Your task to perform on an android device: turn on showing notifications on the lock screen Image 0: 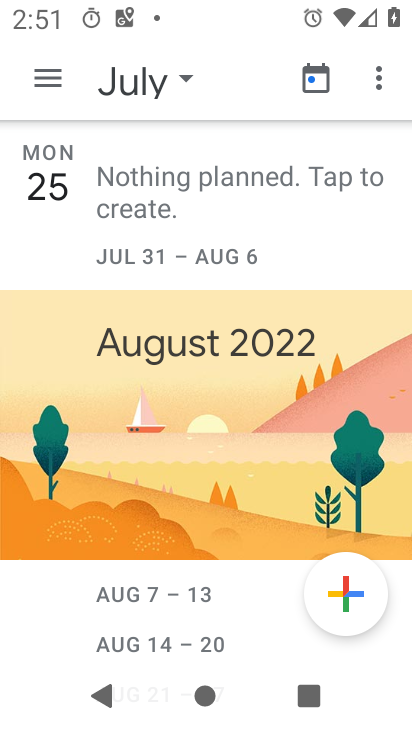
Step 0: press home button
Your task to perform on an android device: turn on showing notifications on the lock screen Image 1: 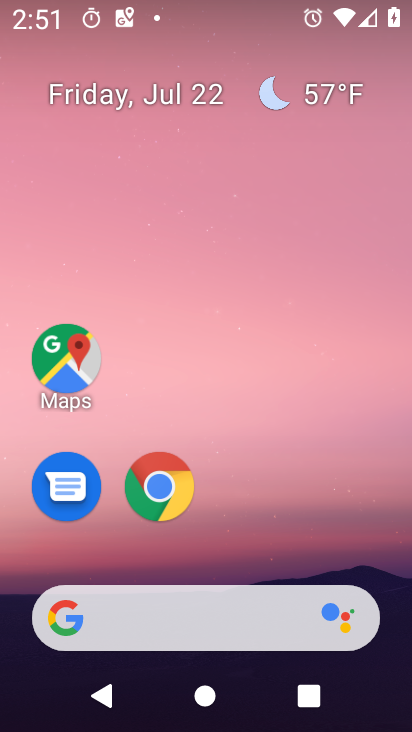
Step 1: drag from (391, 545) to (379, 144)
Your task to perform on an android device: turn on showing notifications on the lock screen Image 2: 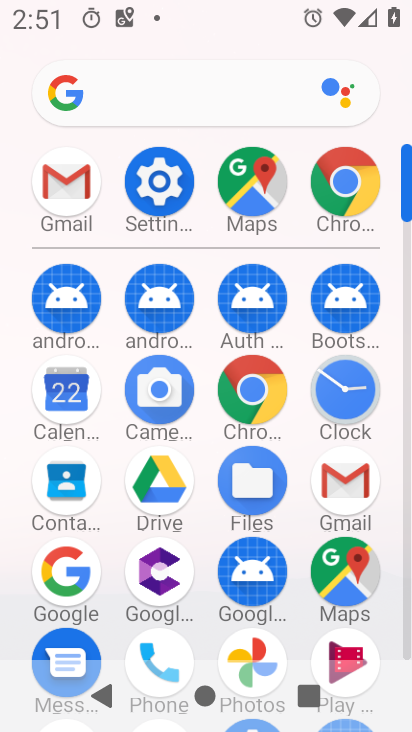
Step 2: click (168, 186)
Your task to perform on an android device: turn on showing notifications on the lock screen Image 3: 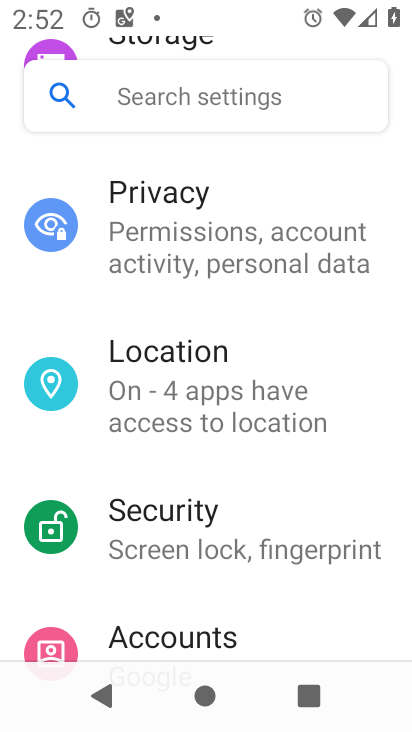
Step 3: drag from (377, 195) to (384, 271)
Your task to perform on an android device: turn on showing notifications on the lock screen Image 4: 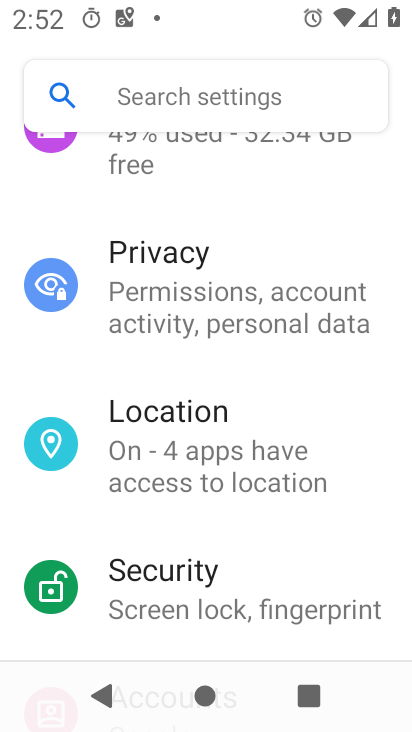
Step 4: drag from (373, 200) to (373, 308)
Your task to perform on an android device: turn on showing notifications on the lock screen Image 5: 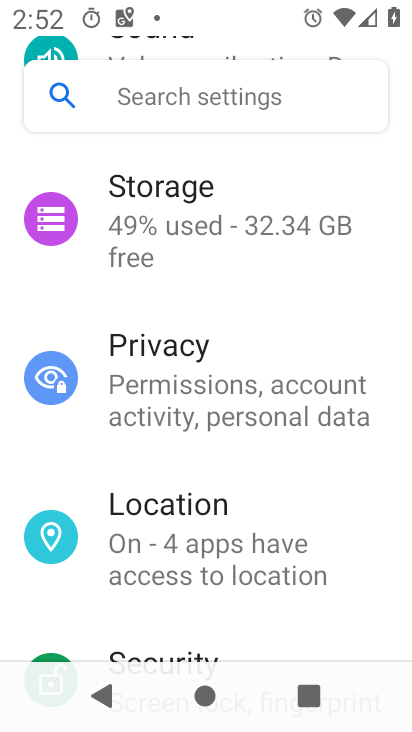
Step 5: drag from (379, 220) to (380, 305)
Your task to perform on an android device: turn on showing notifications on the lock screen Image 6: 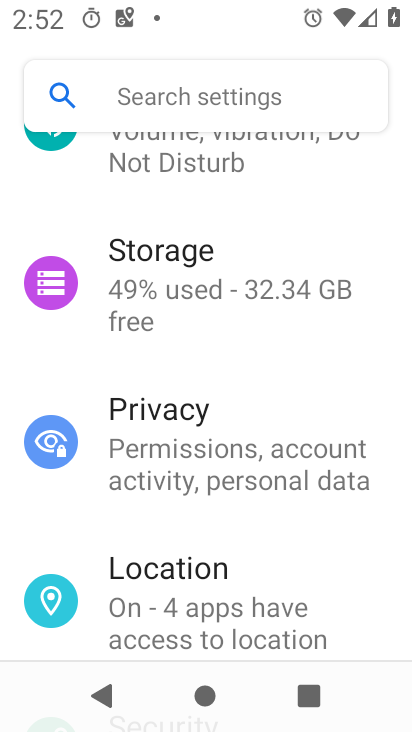
Step 6: drag from (370, 219) to (370, 318)
Your task to perform on an android device: turn on showing notifications on the lock screen Image 7: 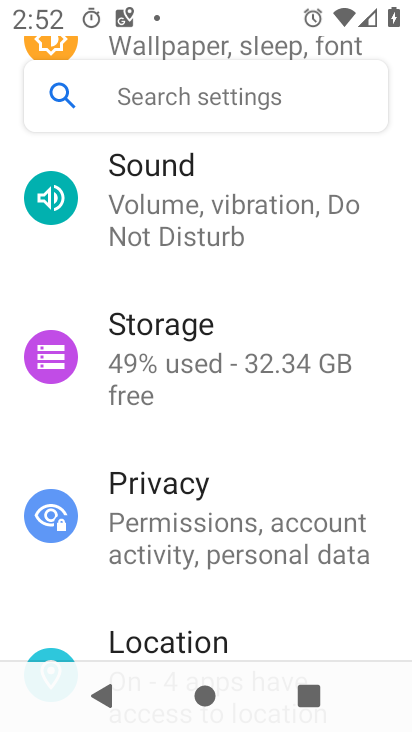
Step 7: drag from (376, 231) to (373, 320)
Your task to perform on an android device: turn on showing notifications on the lock screen Image 8: 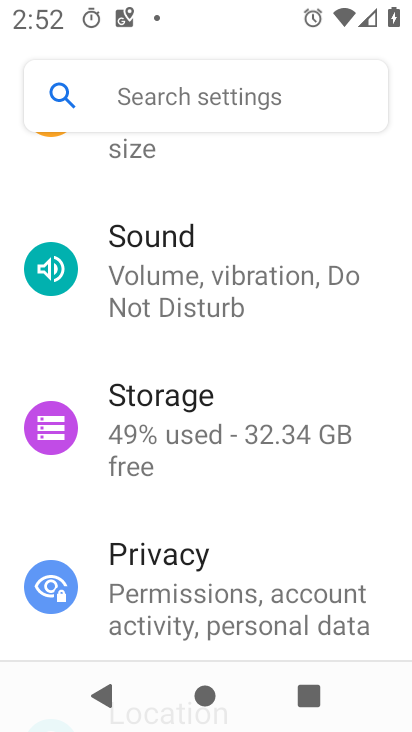
Step 8: drag from (363, 242) to (362, 339)
Your task to perform on an android device: turn on showing notifications on the lock screen Image 9: 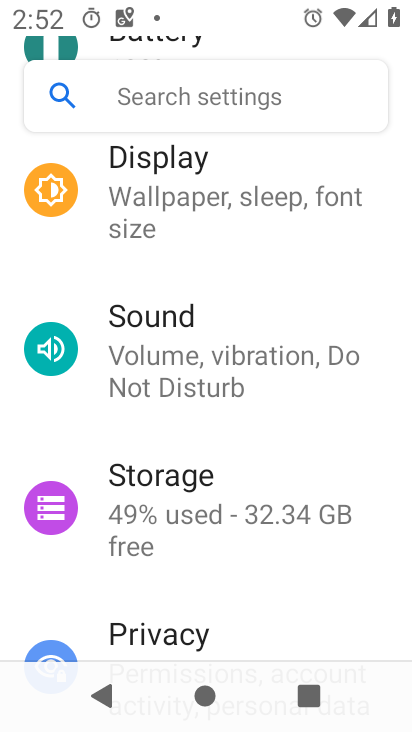
Step 9: drag from (360, 251) to (367, 353)
Your task to perform on an android device: turn on showing notifications on the lock screen Image 10: 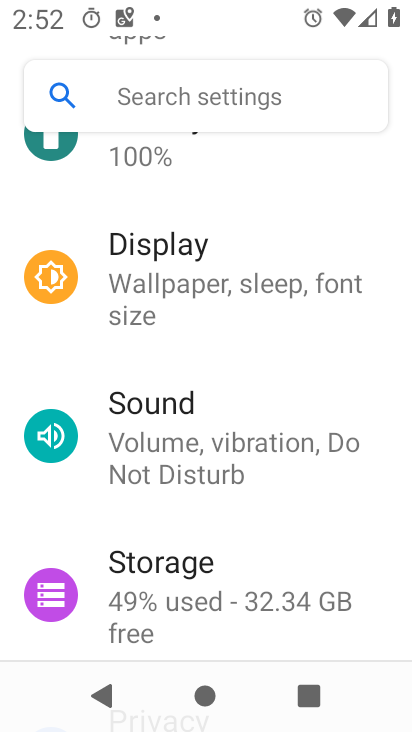
Step 10: drag from (375, 236) to (378, 341)
Your task to perform on an android device: turn on showing notifications on the lock screen Image 11: 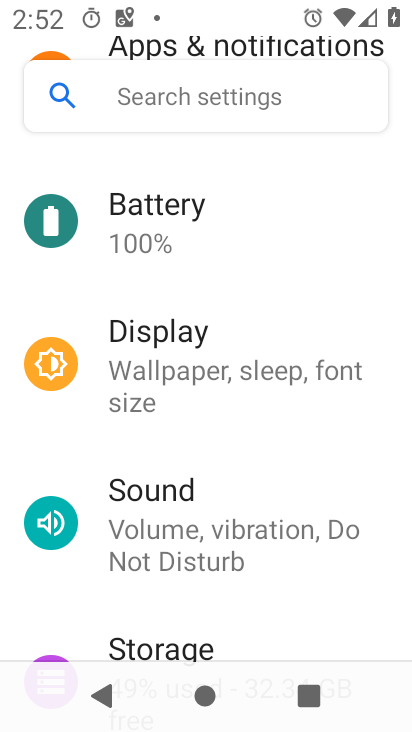
Step 11: drag from (365, 231) to (369, 337)
Your task to perform on an android device: turn on showing notifications on the lock screen Image 12: 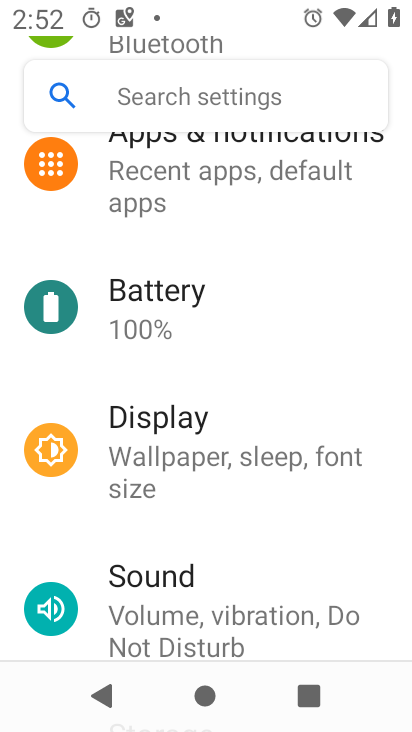
Step 12: drag from (361, 252) to (363, 410)
Your task to perform on an android device: turn on showing notifications on the lock screen Image 13: 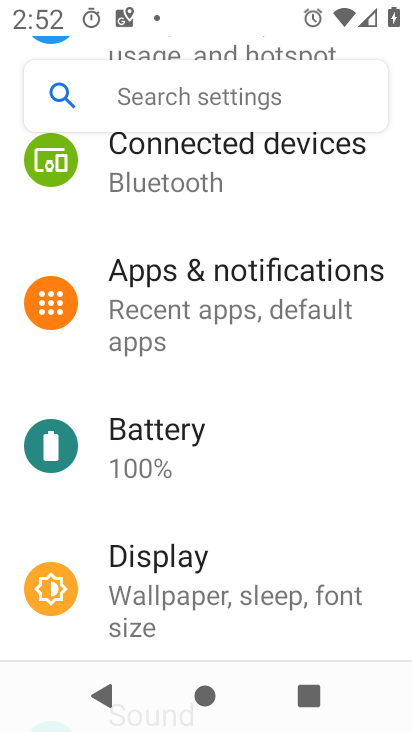
Step 13: drag from (375, 210) to (372, 343)
Your task to perform on an android device: turn on showing notifications on the lock screen Image 14: 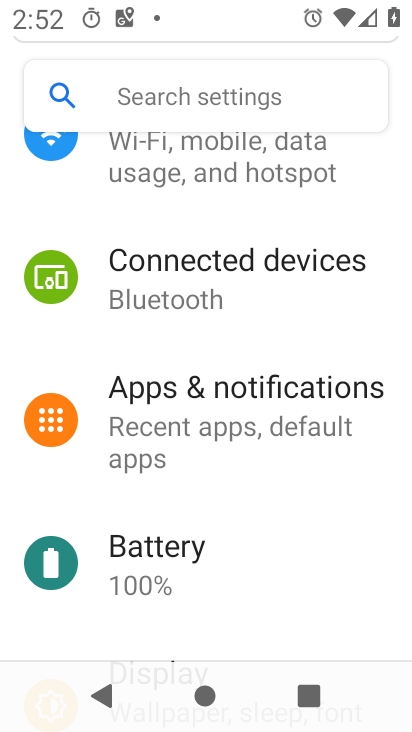
Step 14: click (309, 392)
Your task to perform on an android device: turn on showing notifications on the lock screen Image 15: 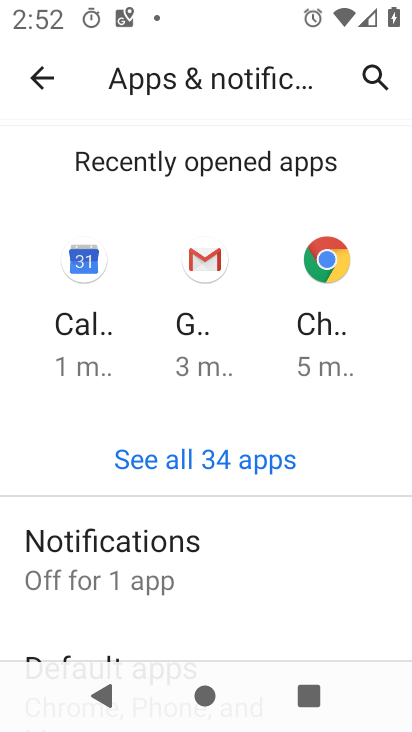
Step 15: click (167, 552)
Your task to perform on an android device: turn on showing notifications on the lock screen Image 16: 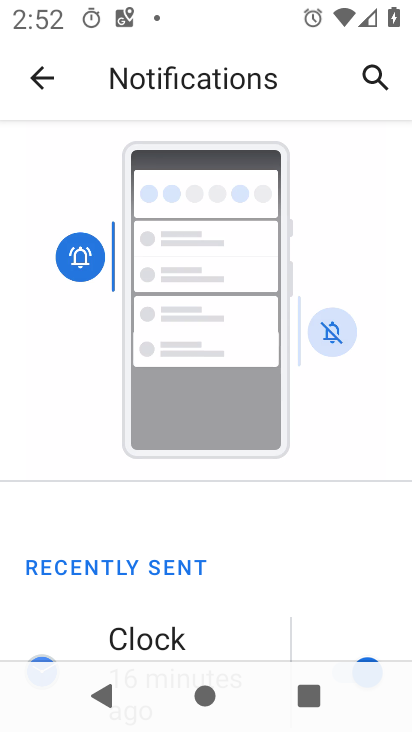
Step 16: drag from (302, 546) to (313, 473)
Your task to perform on an android device: turn on showing notifications on the lock screen Image 17: 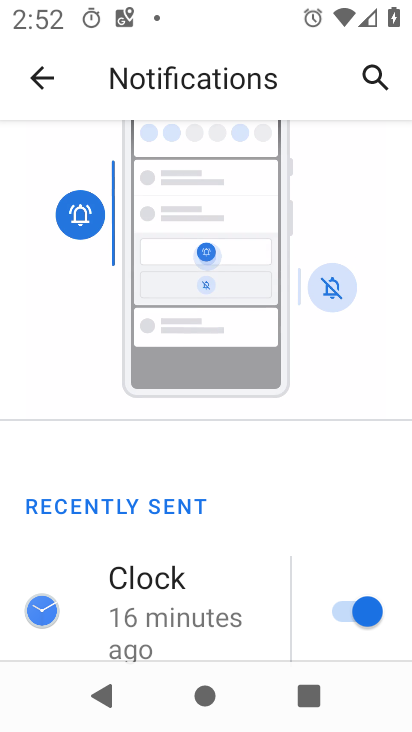
Step 17: drag from (267, 596) to (260, 450)
Your task to perform on an android device: turn on showing notifications on the lock screen Image 18: 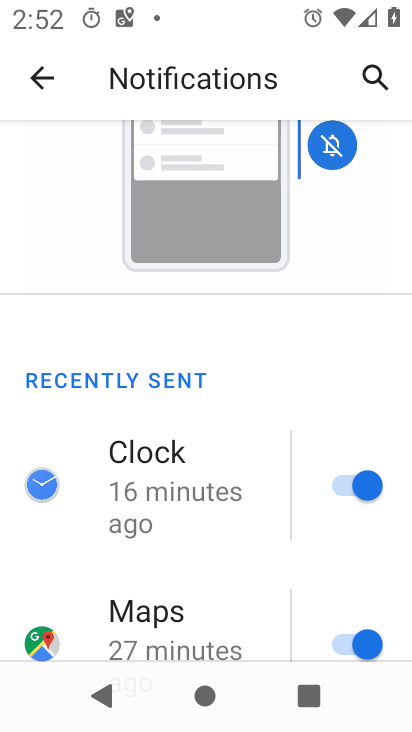
Step 18: drag from (257, 585) to (256, 430)
Your task to perform on an android device: turn on showing notifications on the lock screen Image 19: 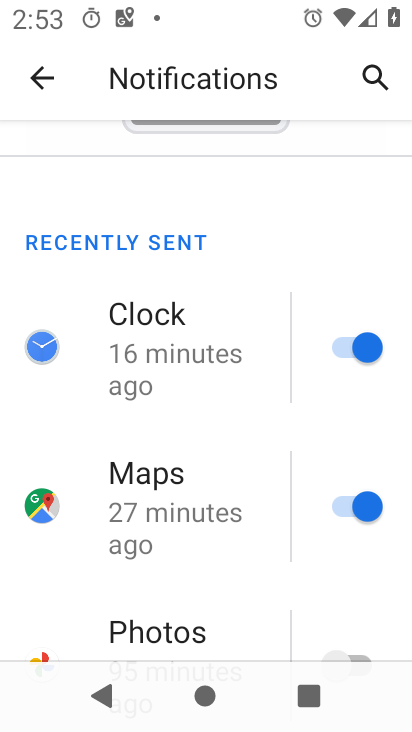
Step 19: drag from (267, 594) to (267, 450)
Your task to perform on an android device: turn on showing notifications on the lock screen Image 20: 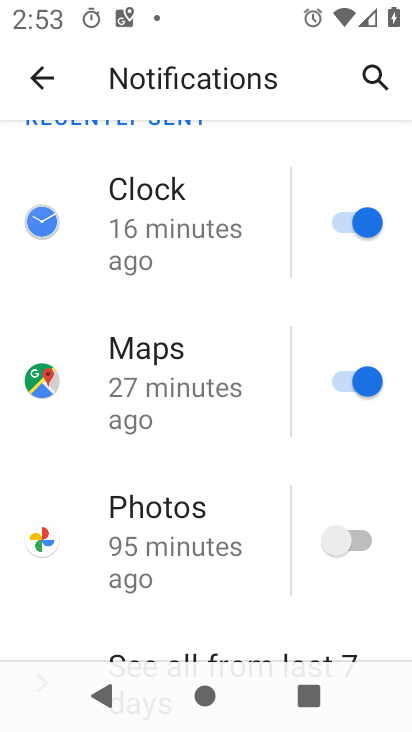
Step 20: drag from (248, 614) to (245, 454)
Your task to perform on an android device: turn on showing notifications on the lock screen Image 21: 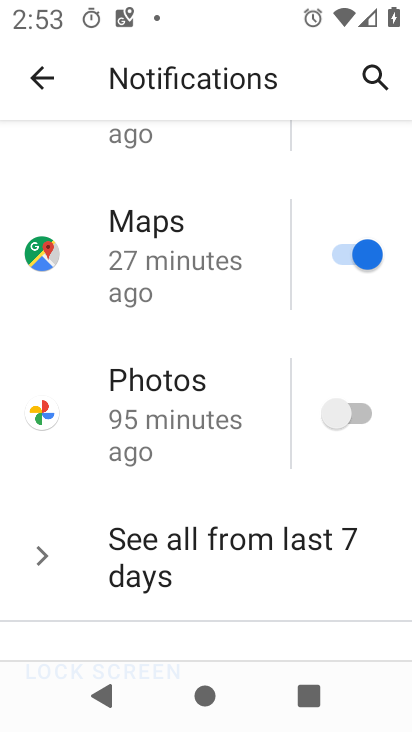
Step 21: drag from (247, 576) to (253, 459)
Your task to perform on an android device: turn on showing notifications on the lock screen Image 22: 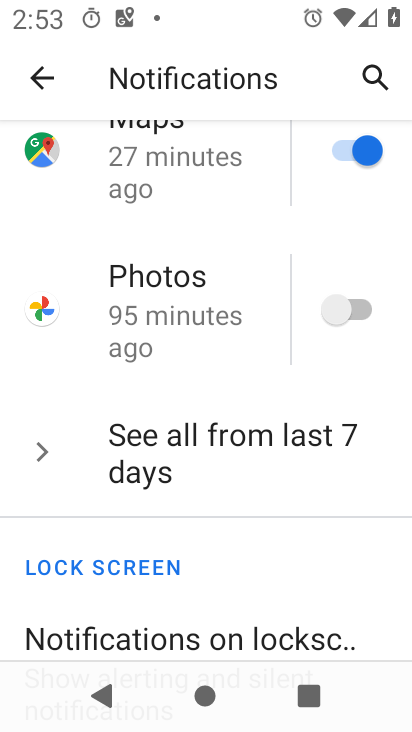
Step 22: drag from (256, 584) to (273, 451)
Your task to perform on an android device: turn on showing notifications on the lock screen Image 23: 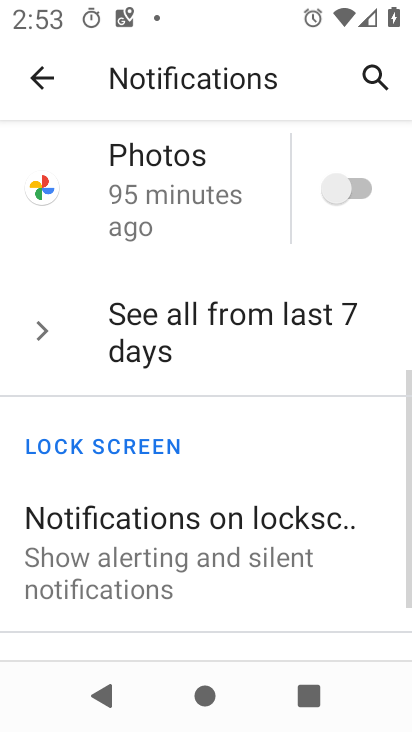
Step 23: click (287, 554)
Your task to perform on an android device: turn on showing notifications on the lock screen Image 24: 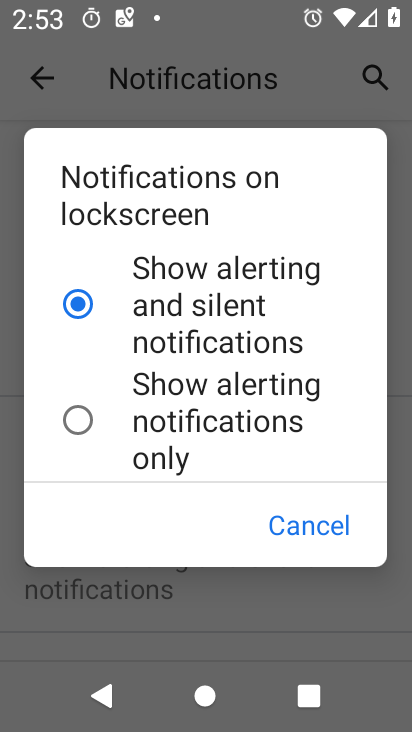
Step 24: task complete